Your task to perform on an android device: What's on my calendar today? Image 0: 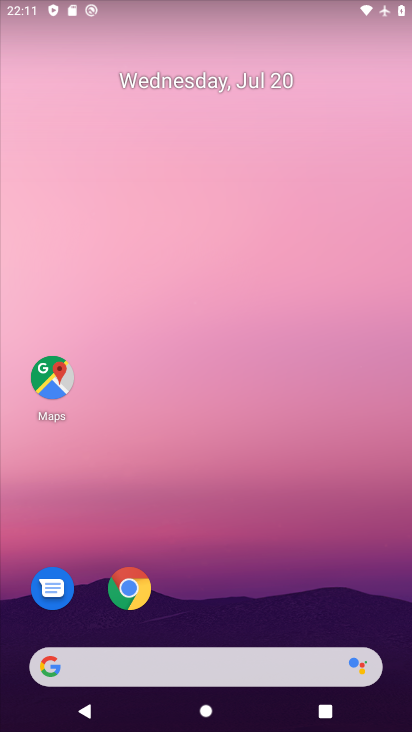
Step 0: drag from (376, 608) to (310, 177)
Your task to perform on an android device: What's on my calendar today? Image 1: 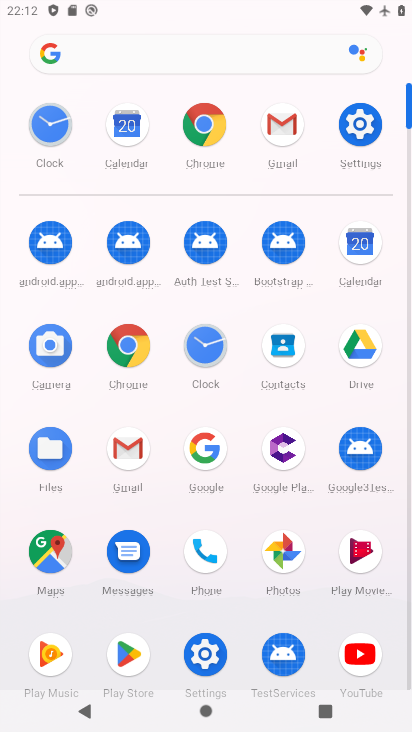
Step 1: click (359, 240)
Your task to perform on an android device: What's on my calendar today? Image 2: 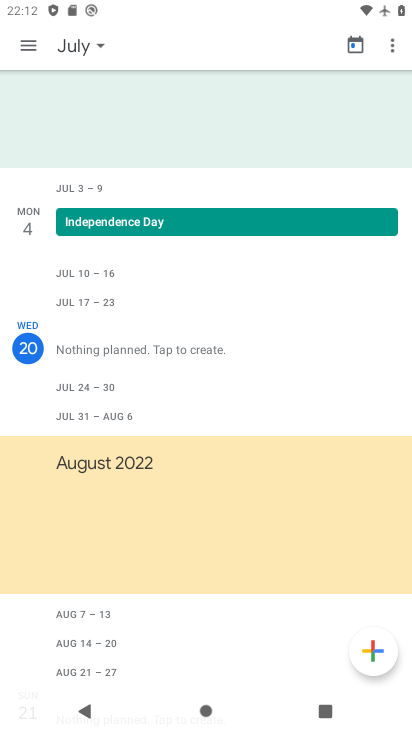
Step 2: click (33, 49)
Your task to perform on an android device: What's on my calendar today? Image 3: 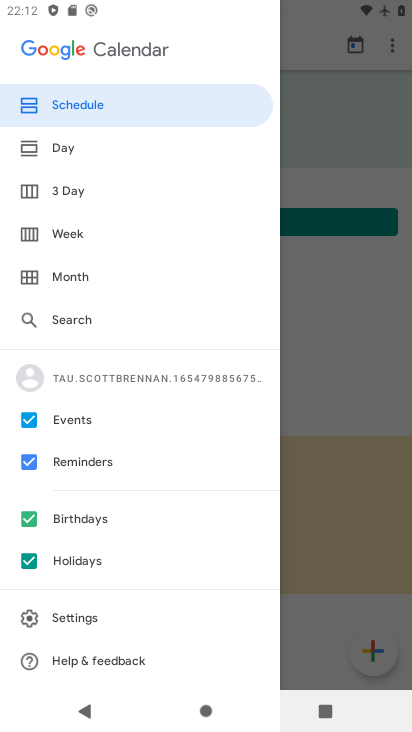
Step 3: click (64, 141)
Your task to perform on an android device: What's on my calendar today? Image 4: 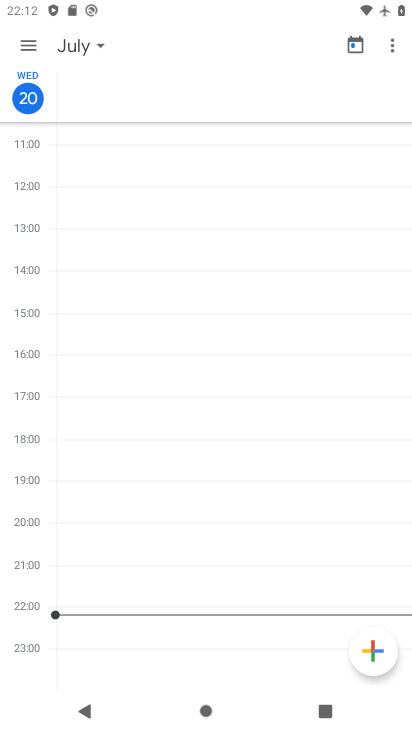
Step 4: task complete